Your task to perform on an android device: turn on improve location accuracy Image 0: 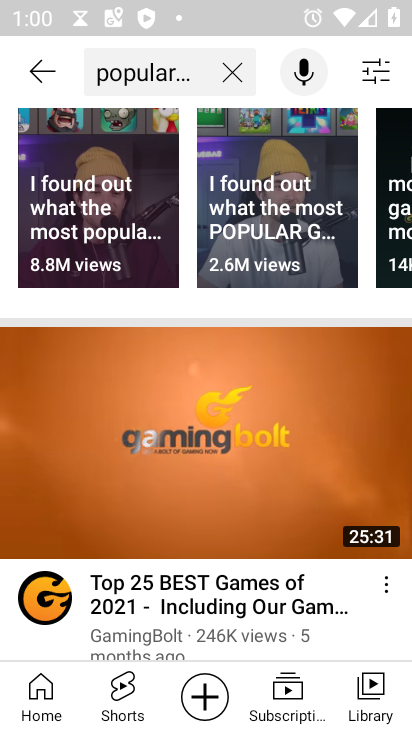
Step 0: press home button
Your task to perform on an android device: turn on improve location accuracy Image 1: 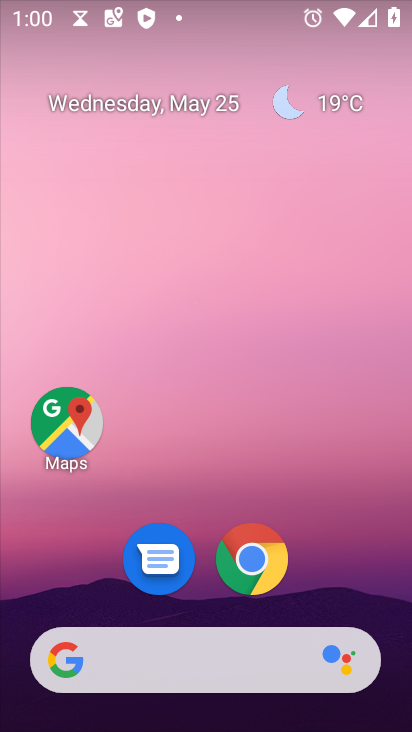
Step 1: drag from (315, 597) to (246, 53)
Your task to perform on an android device: turn on improve location accuracy Image 2: 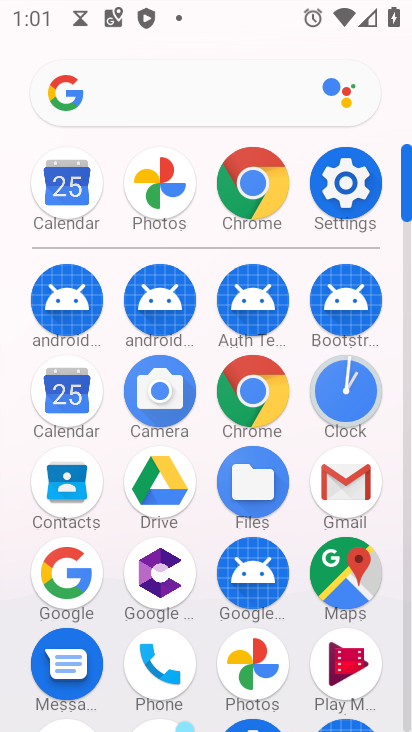
Step 2: click (347, 169)
Your task to perform on an android device: turn on improve location accuracy Image 3: 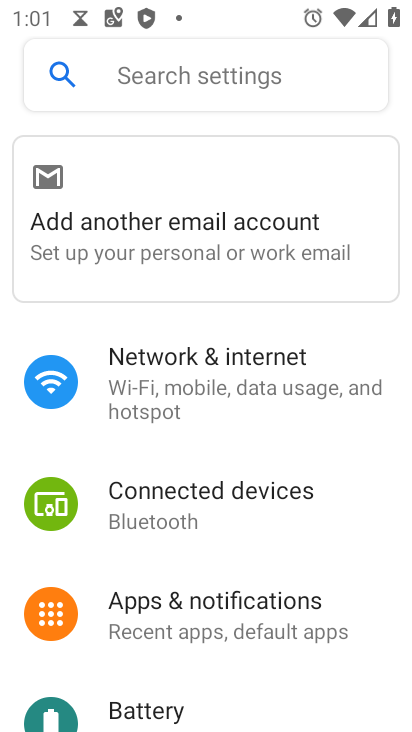
Step 3: drag from (292, 650) to (265, 97)
Your task to perform on an android device: turn on improve location accuracy Image 4: 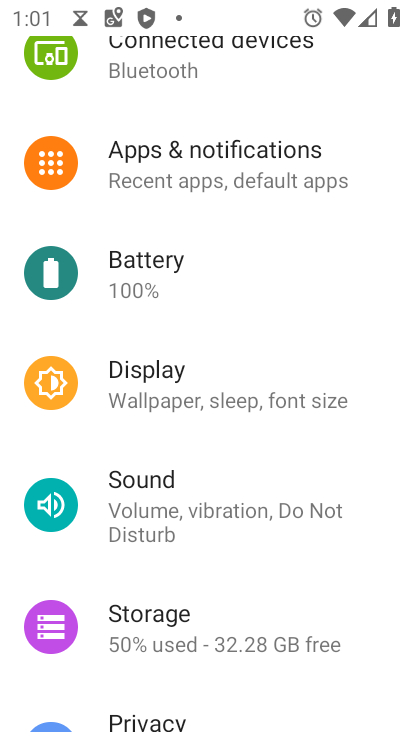
Step 4: drag from (234, 663) to (204, 165)
Your task to perform on an android device: turn on improve location accuracy Image 5: 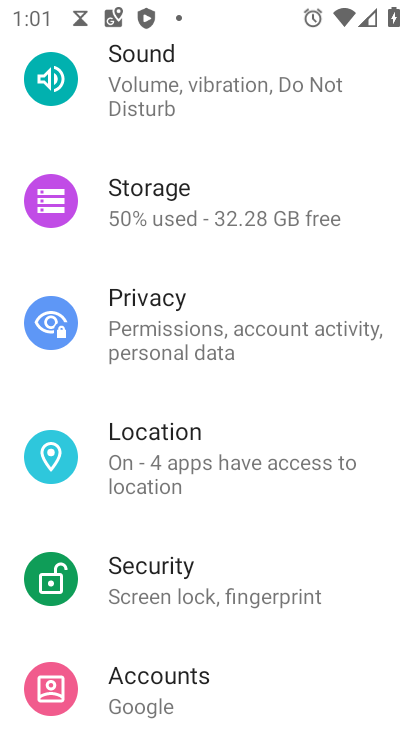
Step 5: click (179, 452)
Your task to perform on an android device: turn on improve location accuracy Image 6: 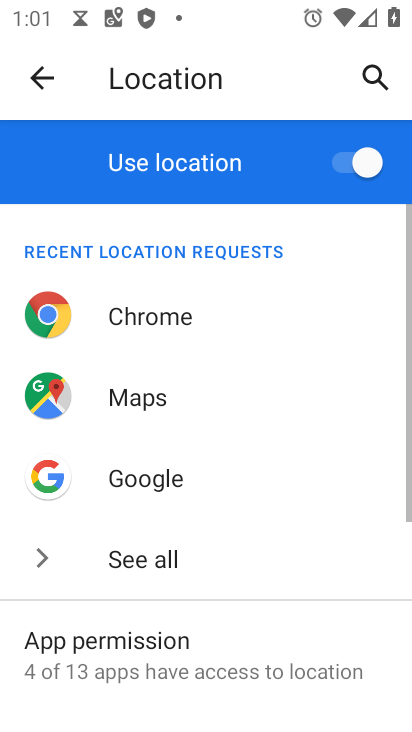
Step 6: drag from (219, 627) to (167, 100)
Your task to perform on an android device: turn on improve location accuracy Image 7: 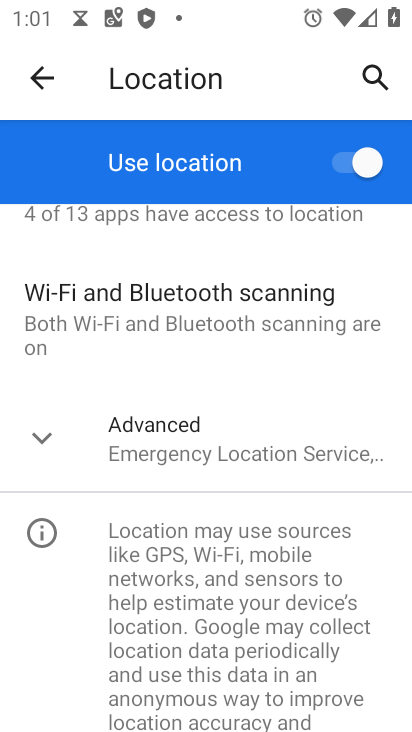
Step 7: click (136, 446)
Your task to perform on an android device: turn on improve location accuracy Image 8: 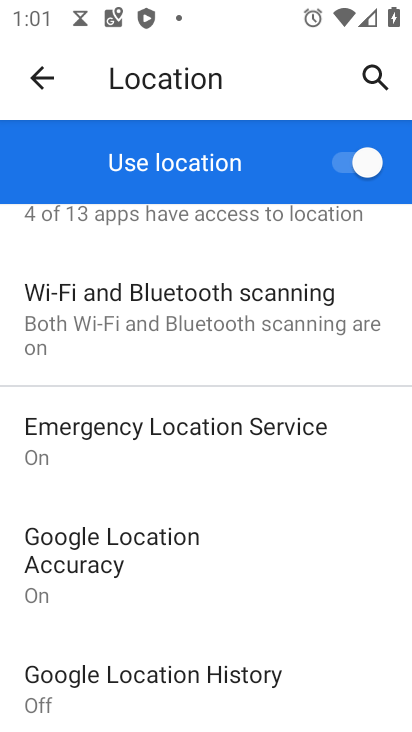
Step 8: drag from (168, 601) to (213, 187)
Your task to perform on an android device: turn on improve location accuracy Image 9: 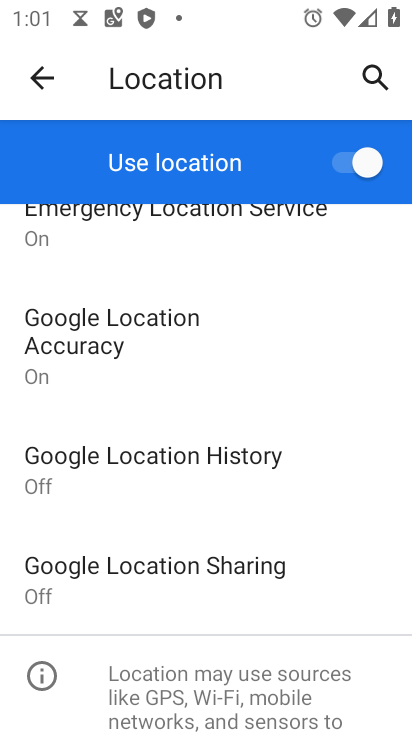
Step 9: click (110, 326)
Your task to perform on an android device: turn on improve location accuracy Image 10: 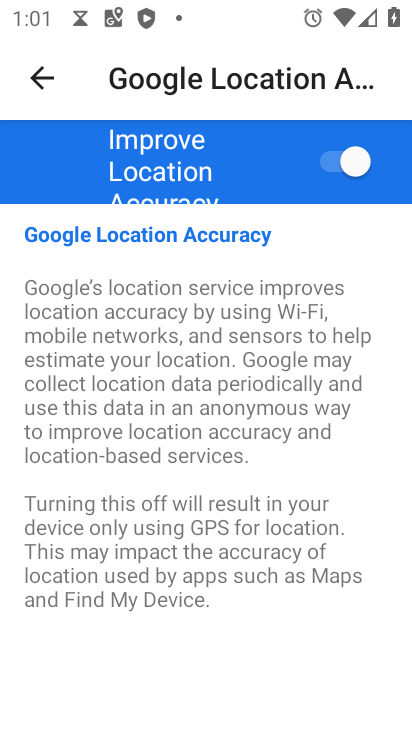
Step 10: task complete